Your task to perform on an android device: check android version Image 0: 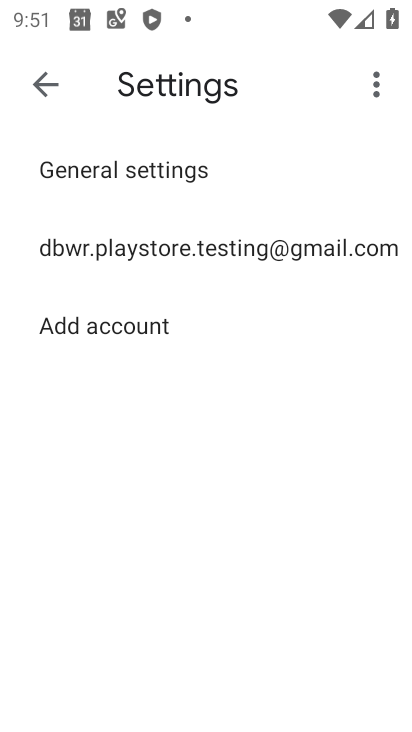
Step 0: press home button
Your task to perform on an android device: check android version Image 1: 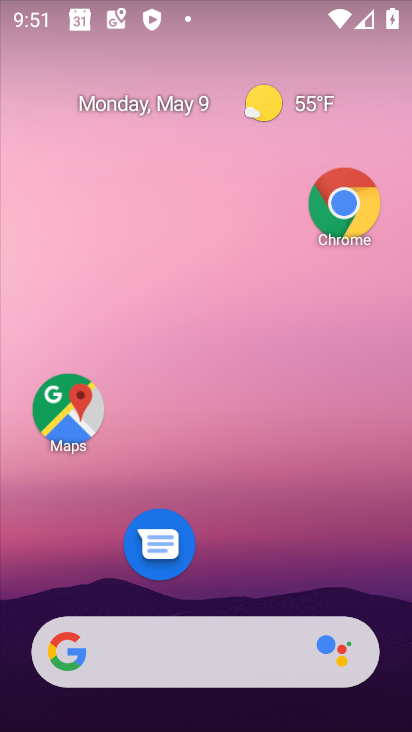
Step 1: drag from (255, 427) to (248, 188)
Your task to perform on an android device: check android version Image 2: 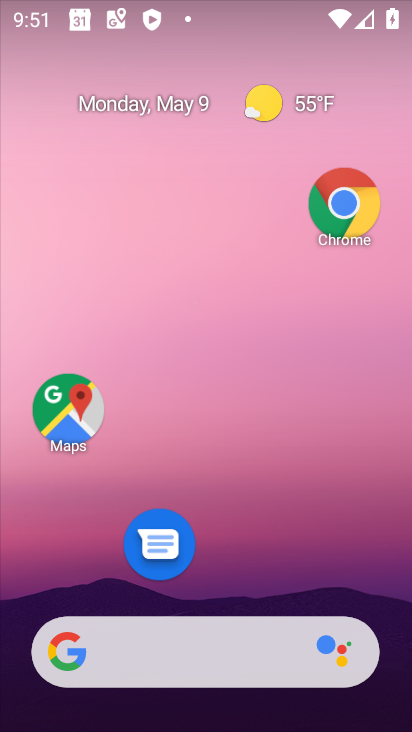
Step 2: drag from (232, 425) to (232, 131)
Your task to perform on an android device: check android version Image 3: 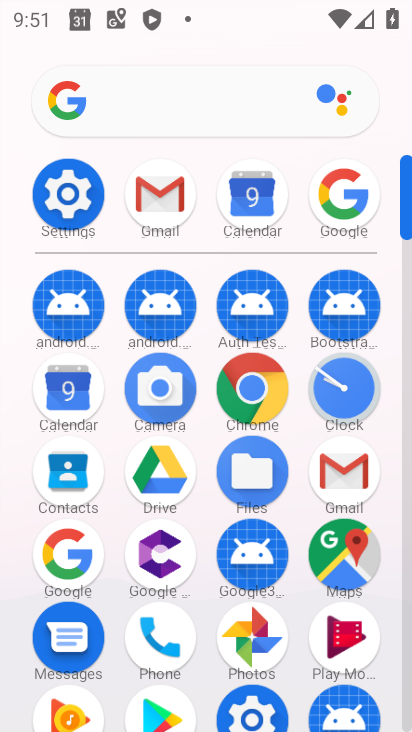
Step 3: click (77, 190)
Your task to perform on an android device: check android version Image 4: 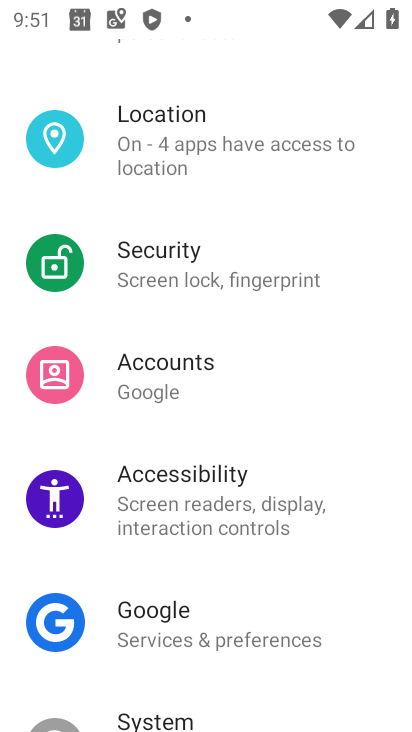
Step 4: drag from (274, 575) to (274, 158)
Your task to perform on an android device: check android version Image 5: 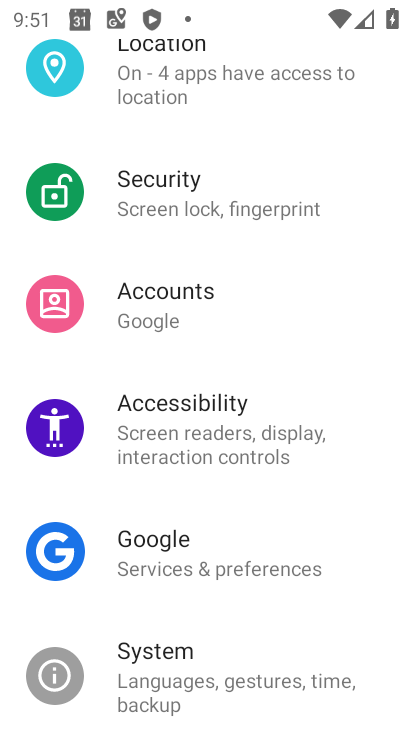
Step 5: drag from (251, 580) to (251, 230)
Your task to perform on an android device: check android version Image 6: 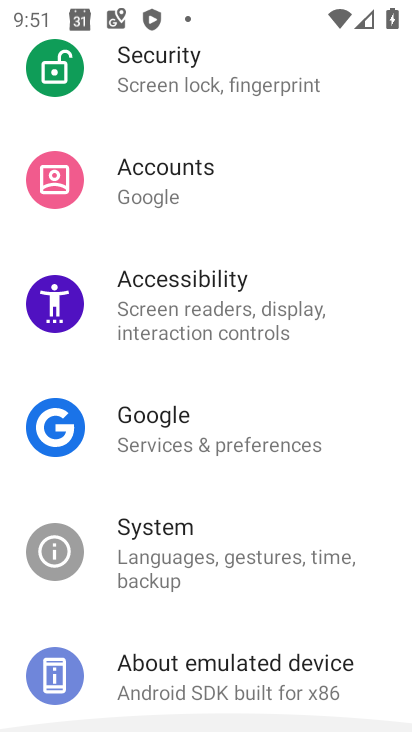
Step 6: drag from (217, 628) to (201, 277)
Your task to perform on an android device: check android version Image 7: 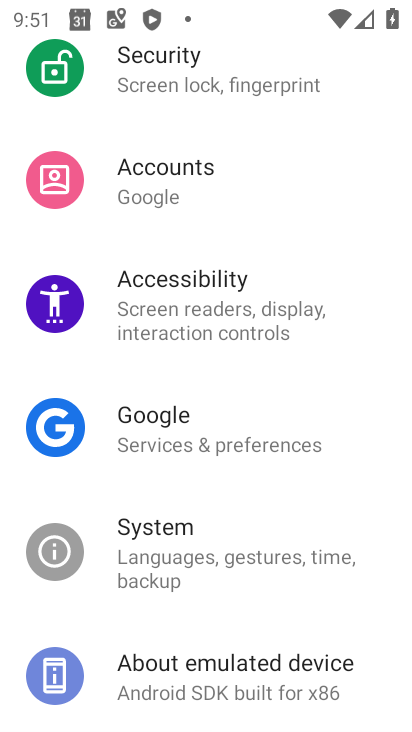
Step 7: drag from (184, 648) to (187, 331)
Your task to perform on an android device: check android version Image 8: 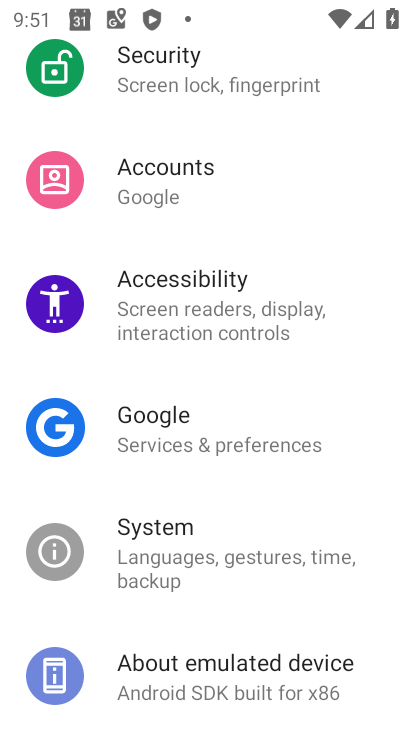
Step 8: click (214, 662)
Your task to perform on an android device: check android version Image 9: 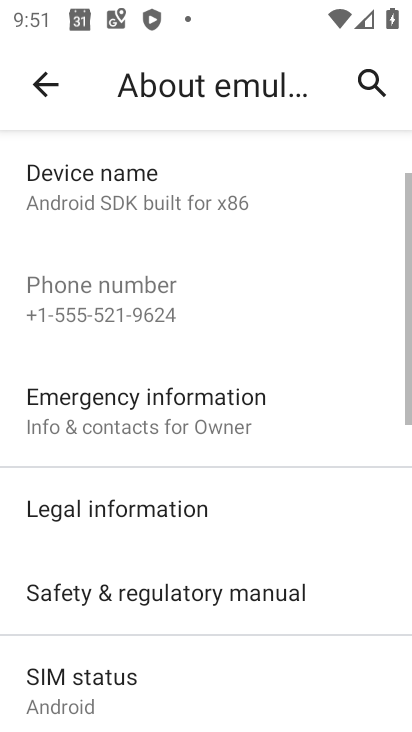
Step 9: drag from (209, 666) to (207, 221)
Your task to perform on an android device: check android version Image 10: 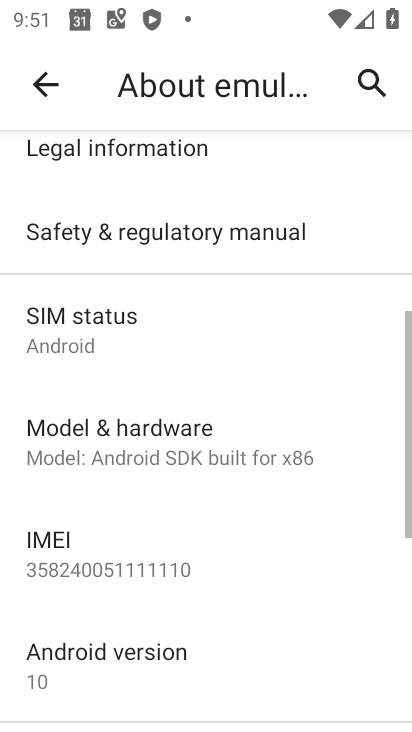
Step 10: click (159, 658)
Your task to perform on an android device: check android version Image 11: 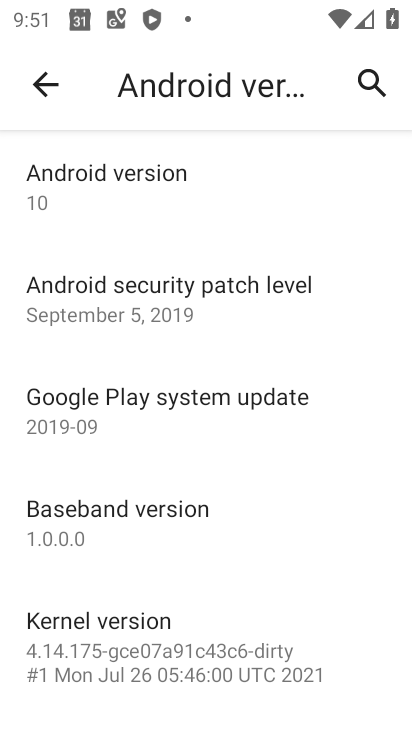
Step 11: click (104, 197)
Your task to perform on an android device: check android version Image 12: 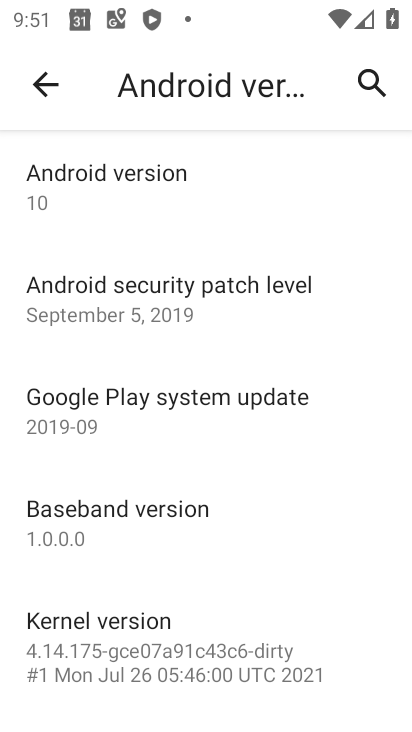
Step 12: task complete